Your task to perform on an android device: allow cookies in the chrome app Image 0: 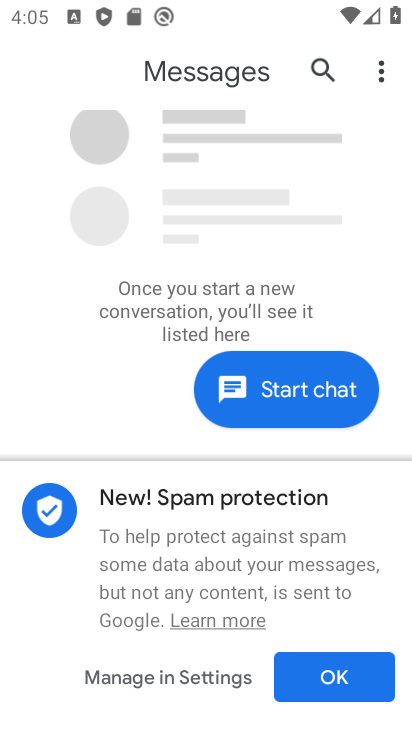
Step 0: press home button
Your task to perform on an android device: allow cookies in the chrome app Image 1: 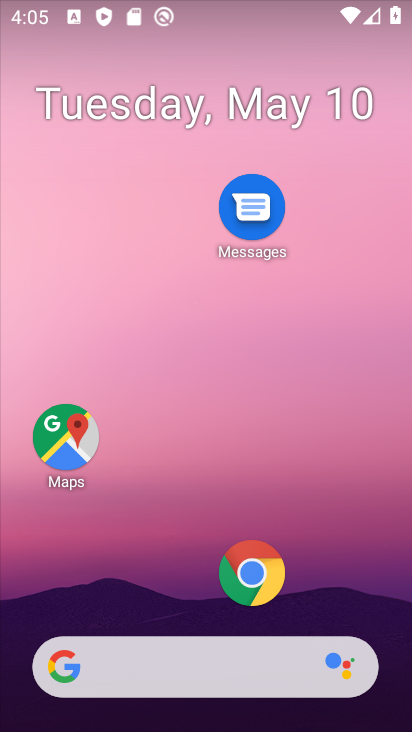
Step 1: click (265, 577)
Your task to perform on an android device: allow cookies in the chrome app Image 2: 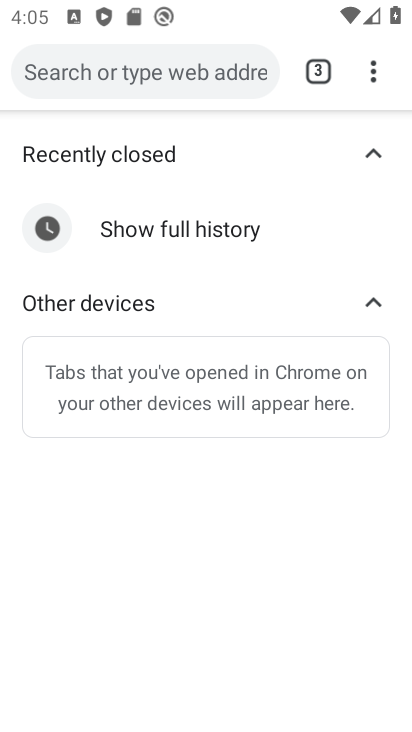
Step 2: drag from (377, 74) to (147, 590)
Your task to perform on an android device: allow cookies in the chrome app Image 3: 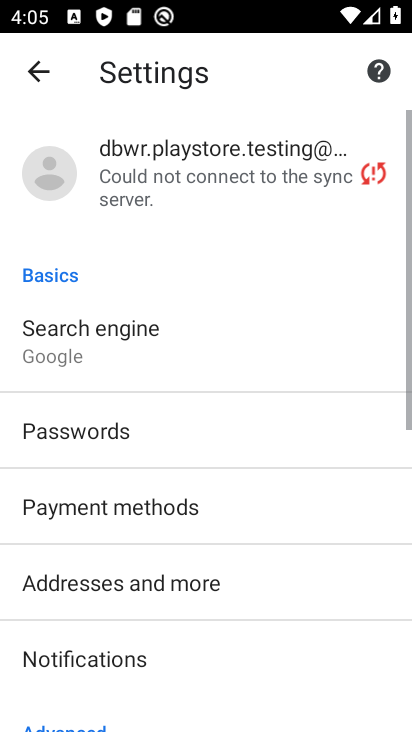
Step 3: drag from (197, 614) to (201, 324)
Your task to perform on an android device: allow cookies in the chrome app Image 4: 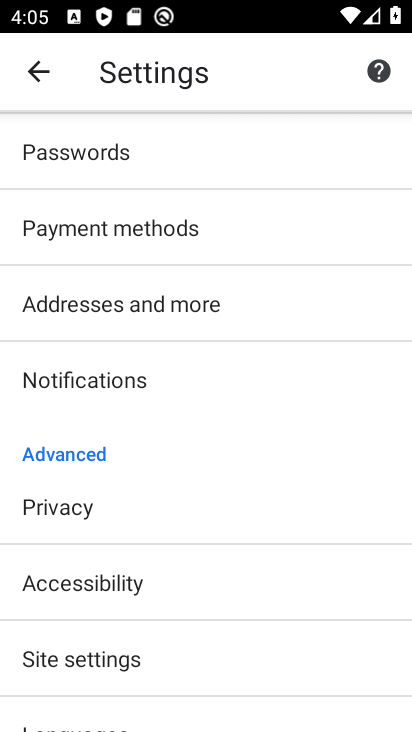
Step 4: click (105, 657)
Your task to perform on an android device: allow cookies in the chrome app Image 5: 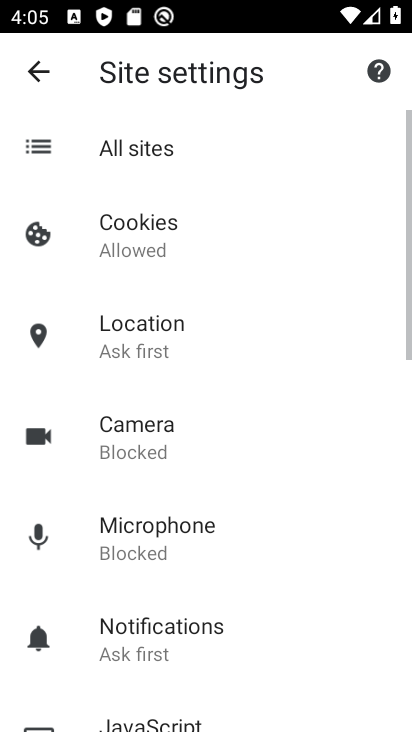
Step 5: click (206, 259)
Your task to perform on an android device: allow cookies in the chrome app Image 6: 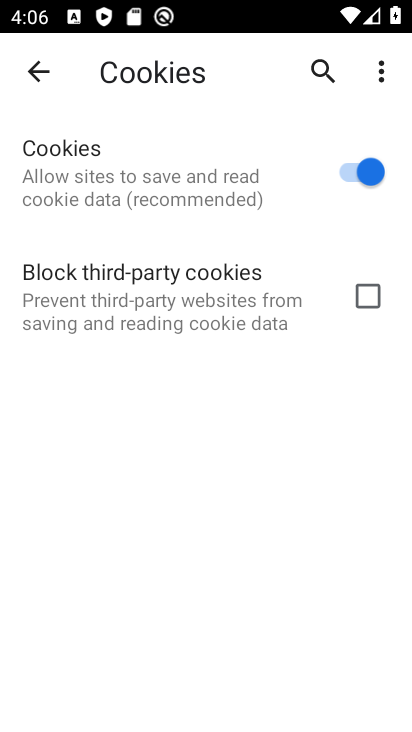
Step 6: task complete